Your task to perform on an android device: Open battery settings Image 0: 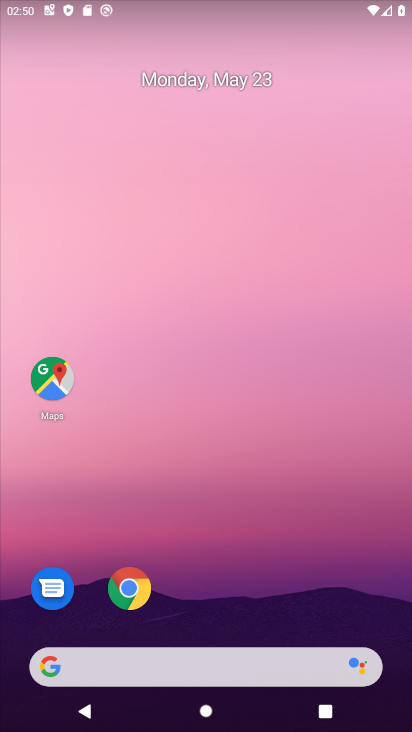
Step 0: drag from (223, 722) to (223, 169)
Your task to perform on an android device: Open battery settings Image 1: 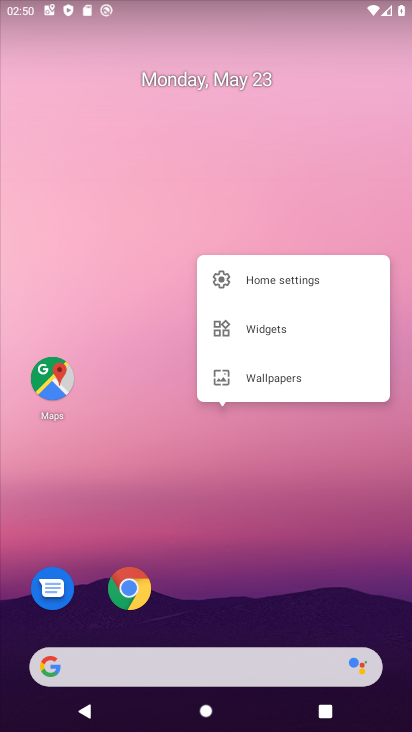
Step 1: click (171, 207)
Your task to perform on an android device: Open battery settings Image 2: 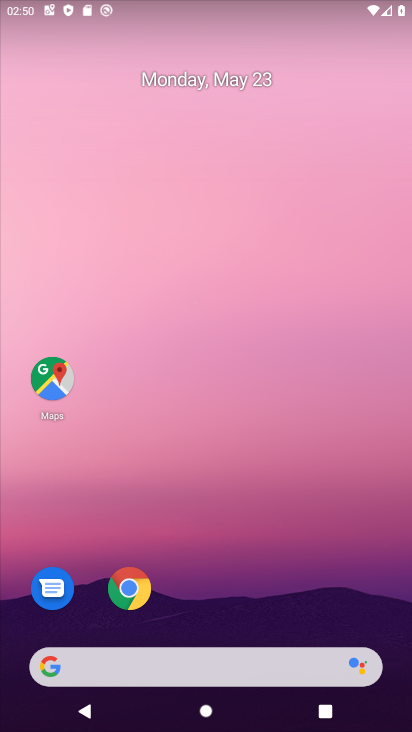
Step 2: drag from (222, 720) to (234, 117)
Your task to perform on an android device: Open battery settings Image 3: 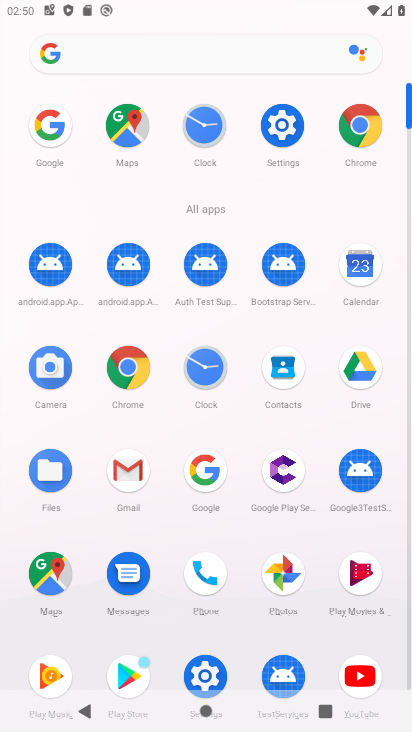
Step 3: click (275, 120)
Your task to perform on an android device: Open battery settings Image 4: 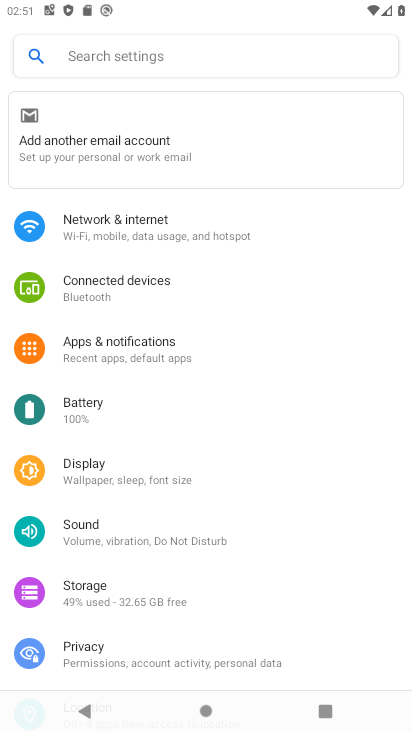
Step 4: drag from (89, 634) to (90, 324)
Your task to perform on an android device: Open battery settings Image 5: 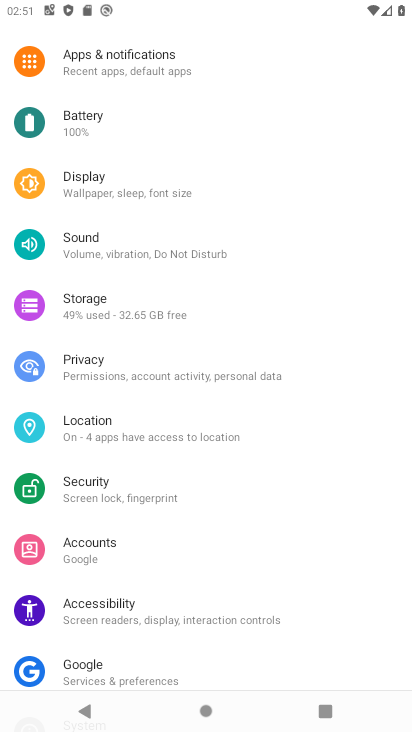
Step 5: click (79, 117)
Your task to perform on an android device: Open battery settings Image 6: 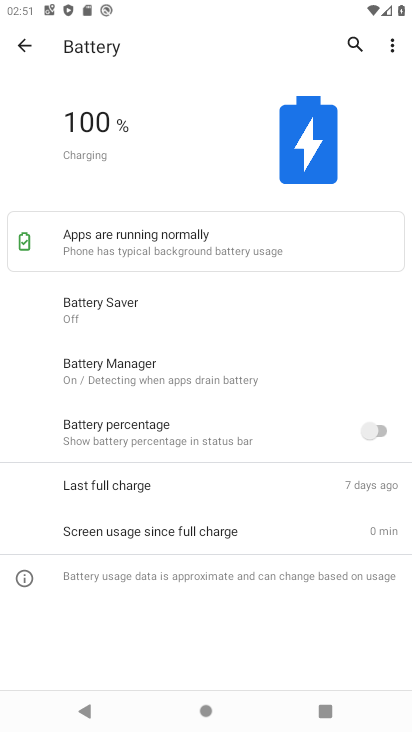
Step 6: task complete